Your task to perform on an android device: Open notification settings Image 0: 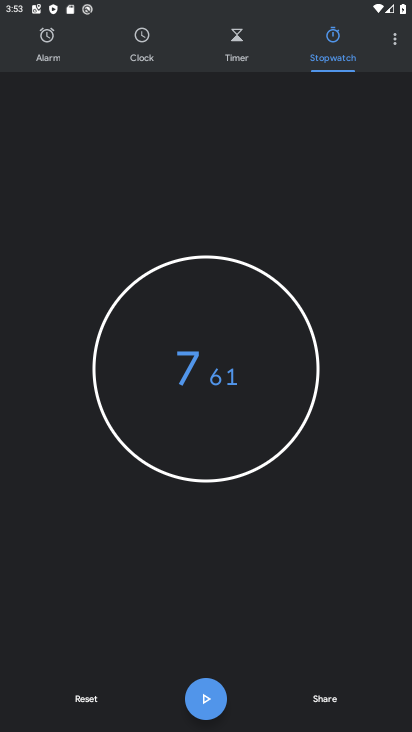
Step 0: press home button
Your task to perform on an android device: Open notification settings Image 1: 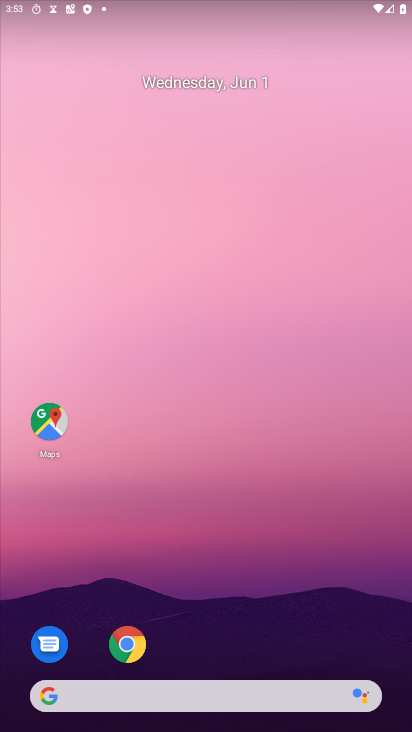
Step 1: drag from (242, 495) to (268, 142)
Your task to perform on an android device: Open notification settings Image 2: 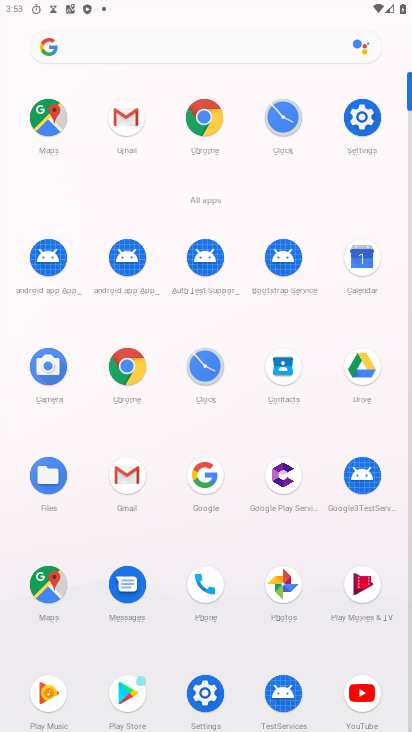
Step 2: click (361, 125)
Your task to perform on an android device: Open notification settings Image 3: 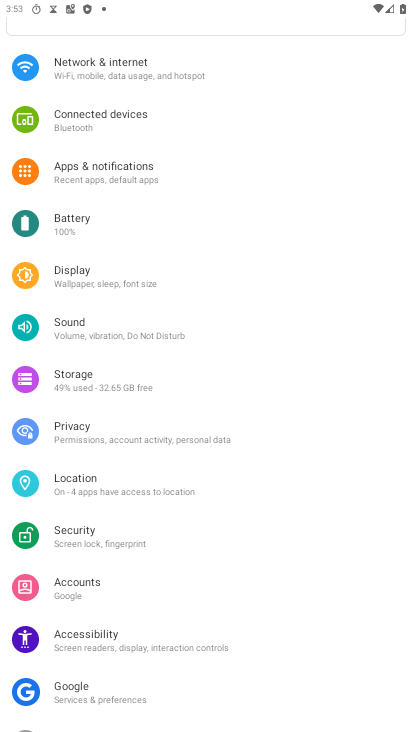
Step 3: click (94, 164)
Your task to perform on an android device: Open notification settings Image 4: 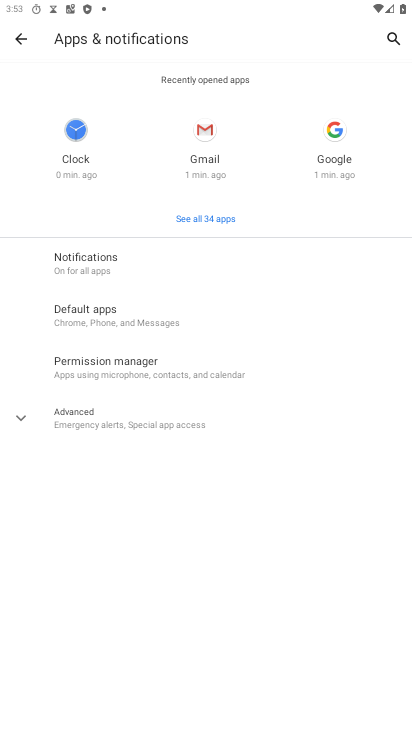
Step 4: click (126, 260)
Your task to perform on an android device: Open notification settings Image 5: 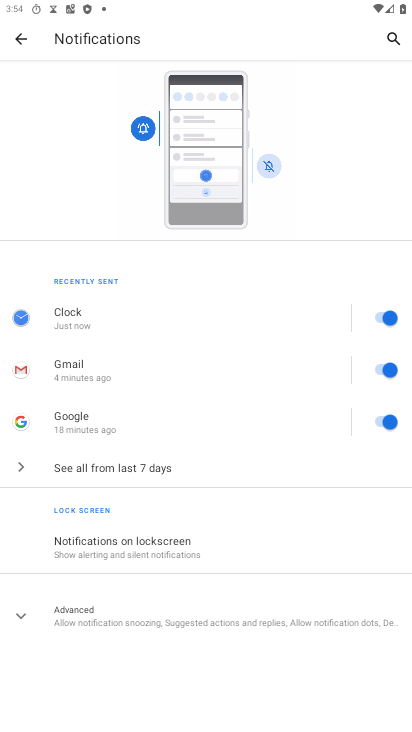
Step 5: task complete